Your task to perform on an android device: Turn off the flashlight Image 0: 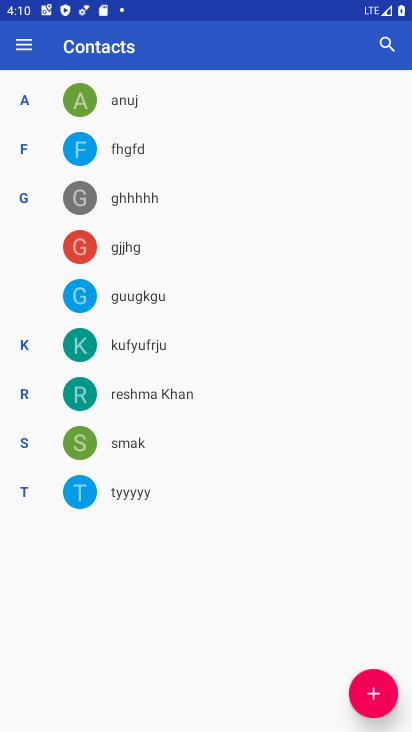
Step 0: drag from (220, 6) to (222, 348)
Your task to perform on an android device: Turn off the flashlight Image 1: 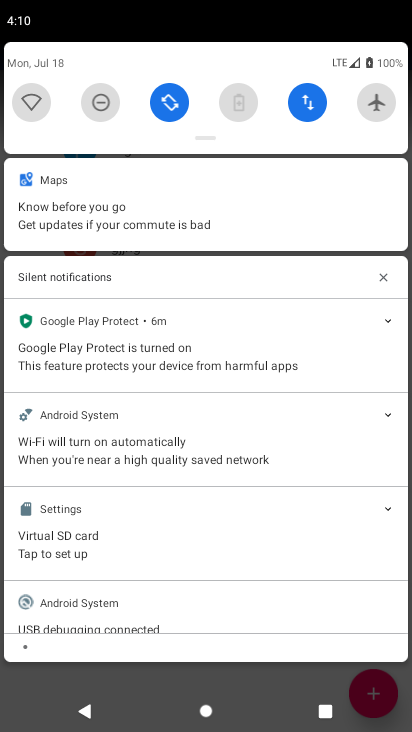
Step 1: drag from (200, 136) to (205, 431)
Your task to perform on an android device: Turn off the flashlight Image 2: 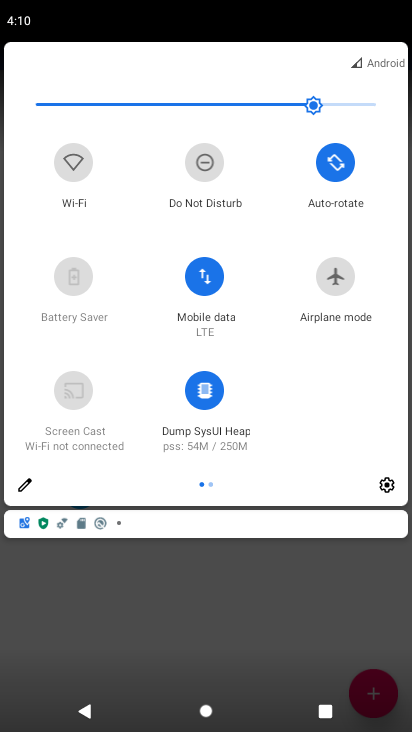
Step 2: click (24, 484)
Your task to perform on an android device: Turn off the flashlight Image 3: 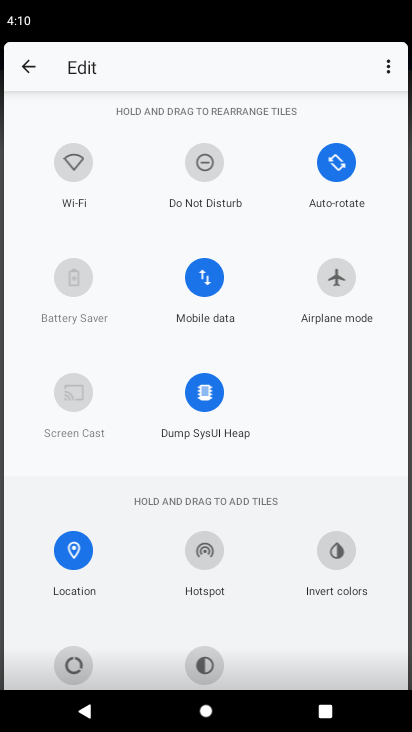
Step 3: task complete